Your task to perform on an android device: Check the news Image 0: 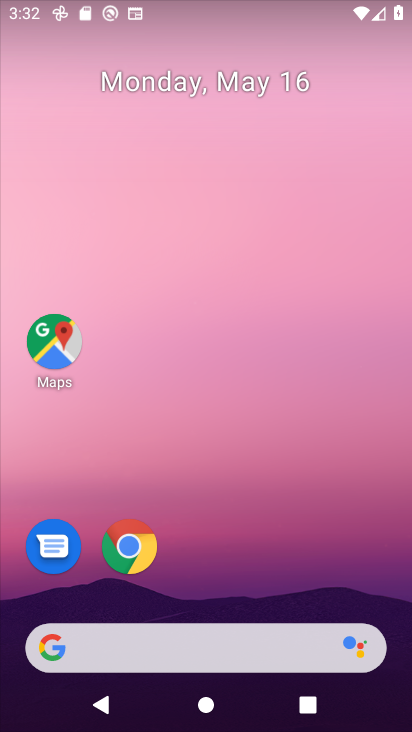
Step 0: drag from (20, 222) to (390, 491)
Your task to perform on an android device: Check the news Image 1: 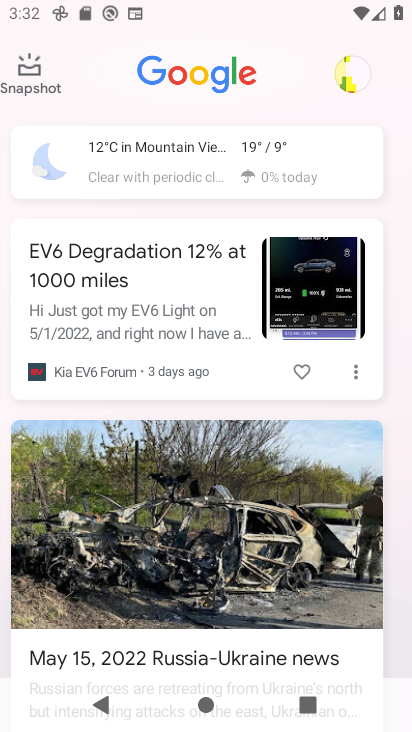
Step 1: task complete